Your task to perform on an android device: create a new album in the google photos Image 0: 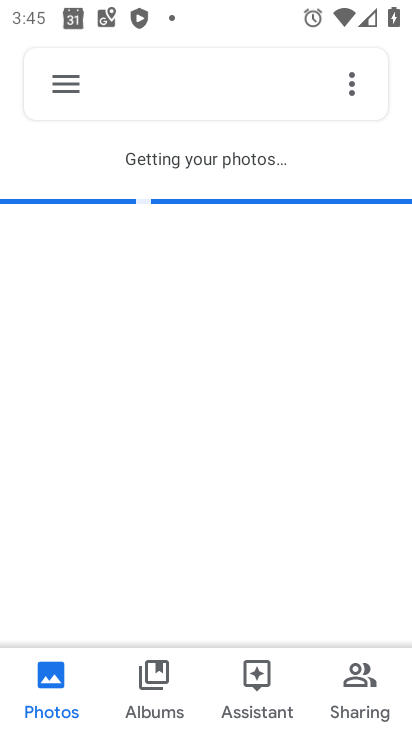
Step 0: press home button
Your task to perform on an android device: create a new album in the google photos Image 1: 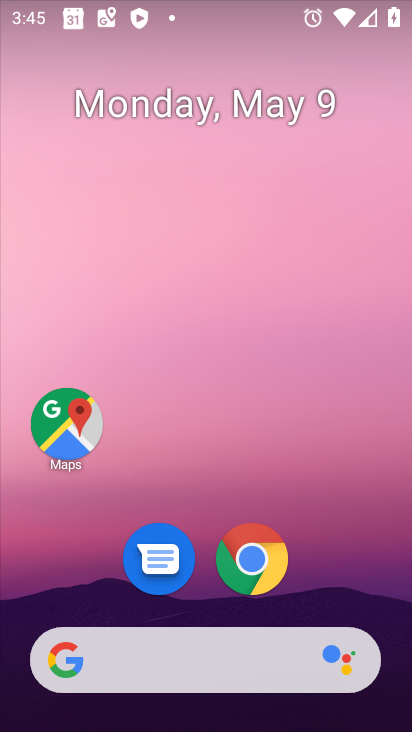
Step 1: drag from (220, 726) to (209, 76)
Your task to perform on an android device: create a new album in the google photos Image 2: 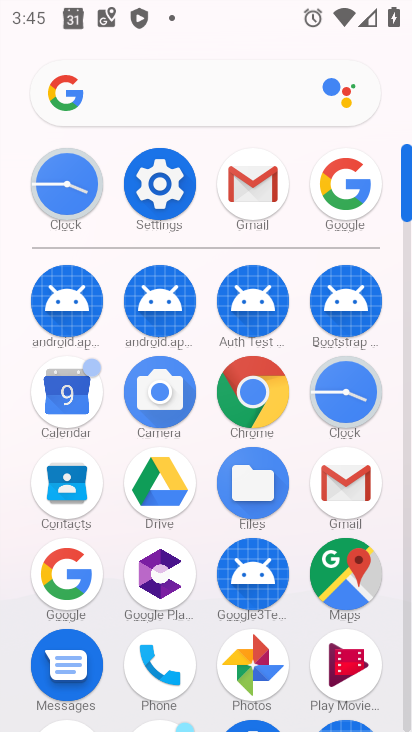
Step 2: click (254, 669)
Your task to perform on an android device: create a new album in the google photos Image 3: 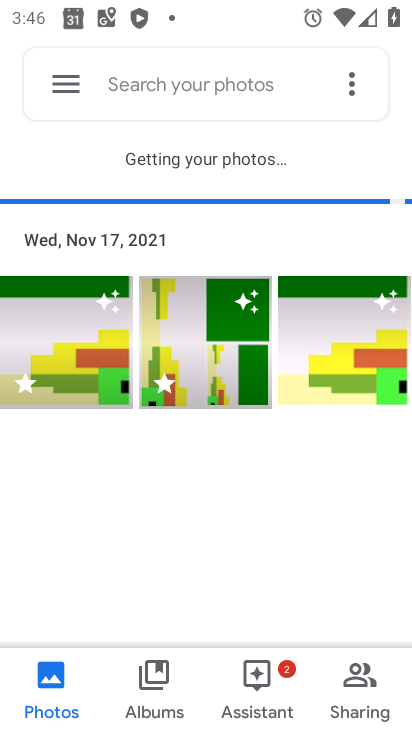
Step 3: click (351, 89)
Your task to perform on an android device: create a new album in the google photos Image 4: 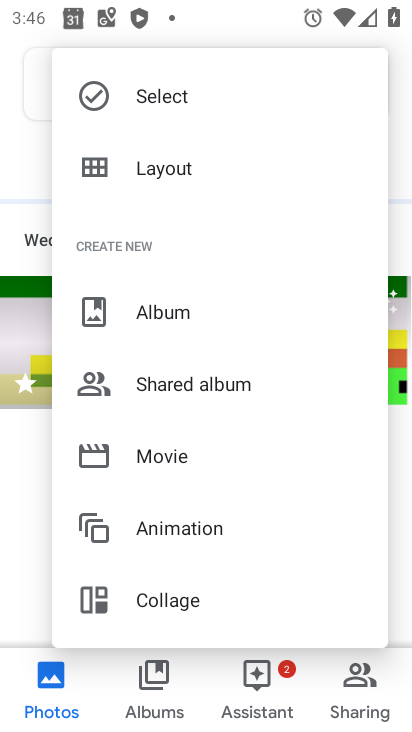
Step 4: click (155, 311)
Your task to perform on an android device: create a new album in the google photos Image 5: 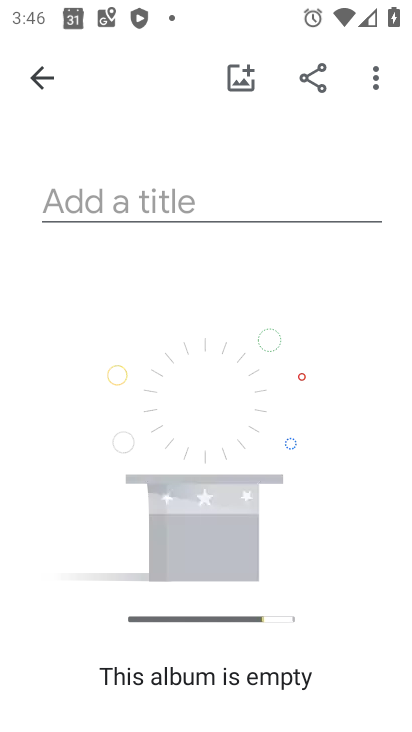
Step 5: click (165, 204)
Your task to perform on an android device: create a new album in the google photos Image 6: 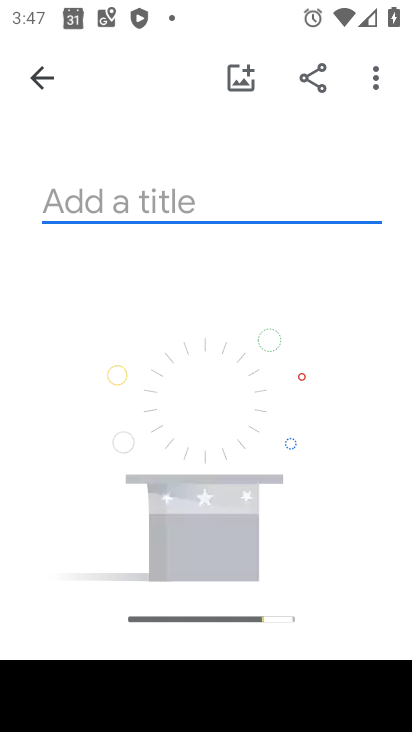
Step 6: type "nair lshatriya"
Your task to perform on an android device: create a new album in the google photos Image 7: 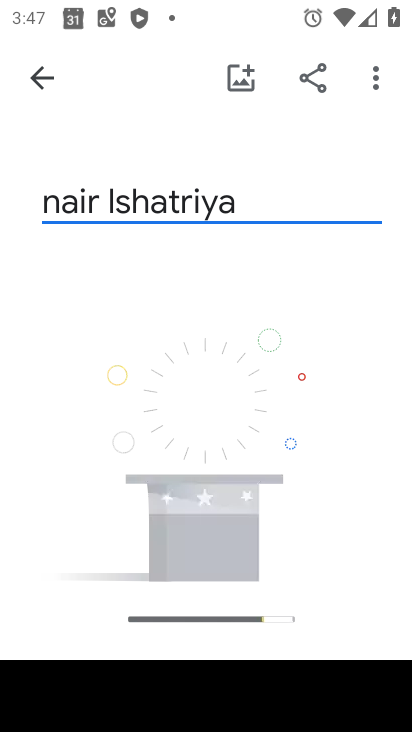
Step 7: click (189, 382)
Your task to perform on an android device: create a new album in the google photos Image 8: 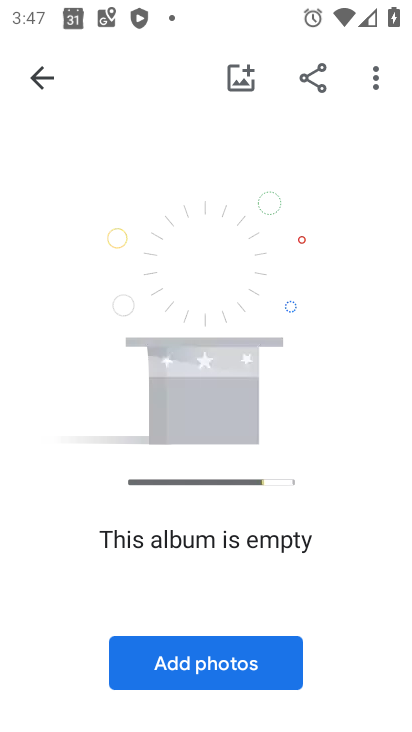
Step 8: click (176, 662)
Your task to perform on an android device: create a new album in the google photos Image 9: 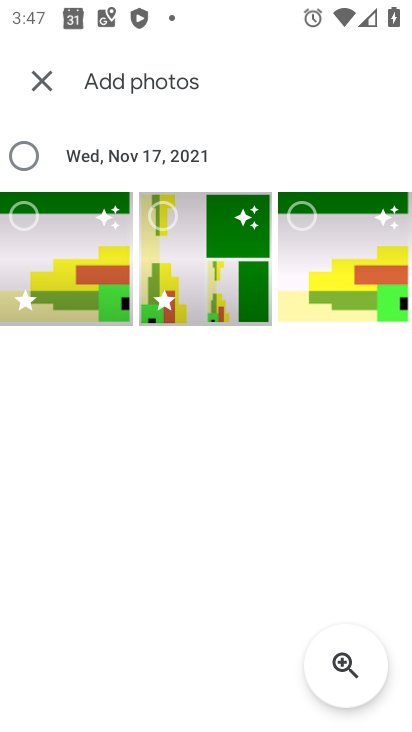
Step 9: click (171, 216)
Your task to perform on an android device: create a new album in the google photos Image 10: 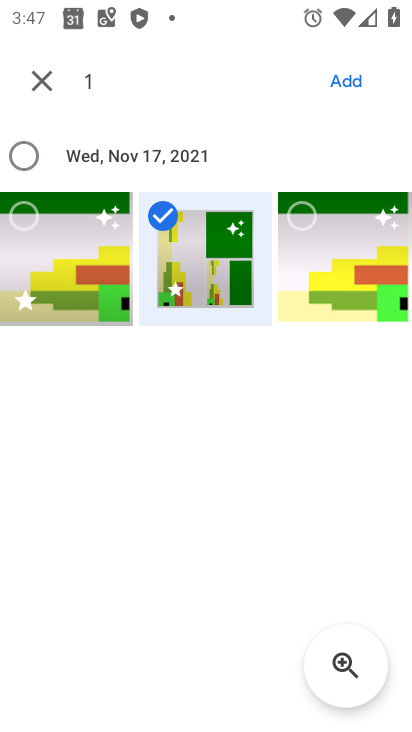
Step 10: click (353, 80)
Your task to perform on an android device: create a new album in the google photos Image 11: 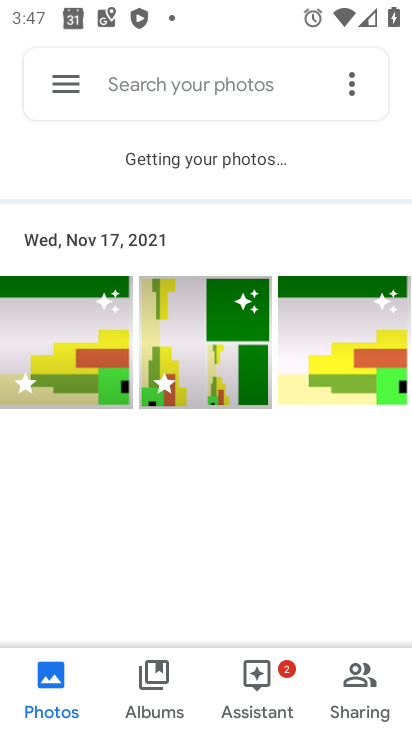
Step 11: task complete